Your task to perform on an android device: open device folders in google photos Image 0: 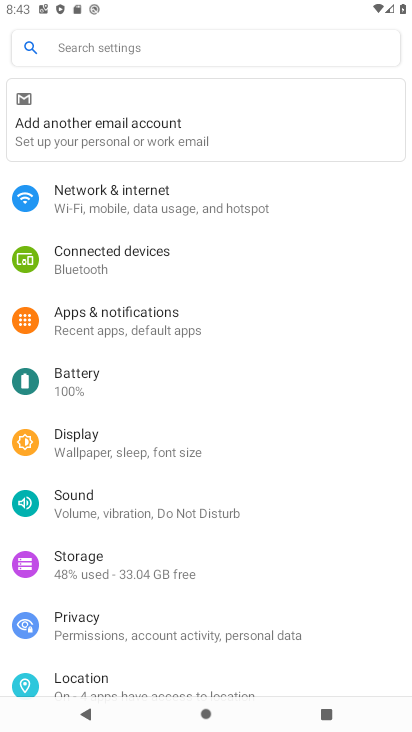
Step 0: press home button
Your task to perform on an android device: open device folders in google photos Image 1: 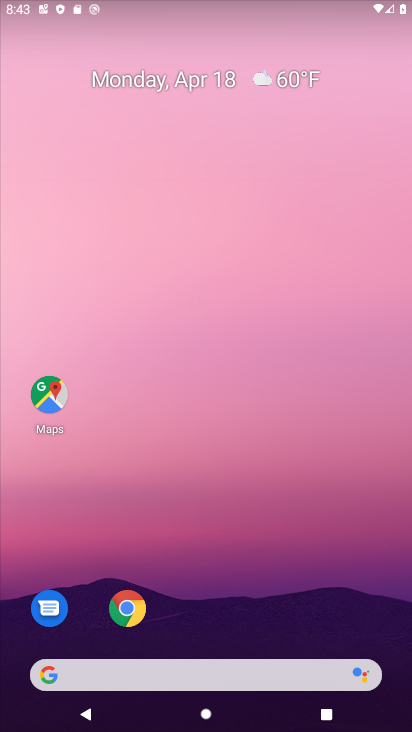
Step 1: drag from (211, 525) to (336, 240)
Your task to perform on an android device: open device folders in google photos Image 2: 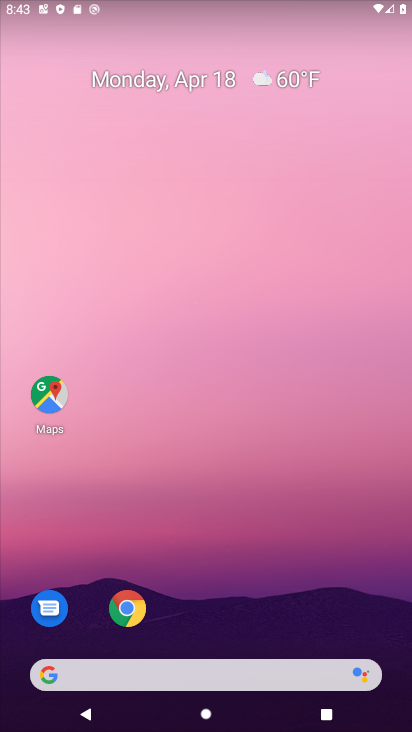
Step 2: drag from (232, 642) to (286, 326)
Your task to perform on an android device: open device folders in google photos Image 3: 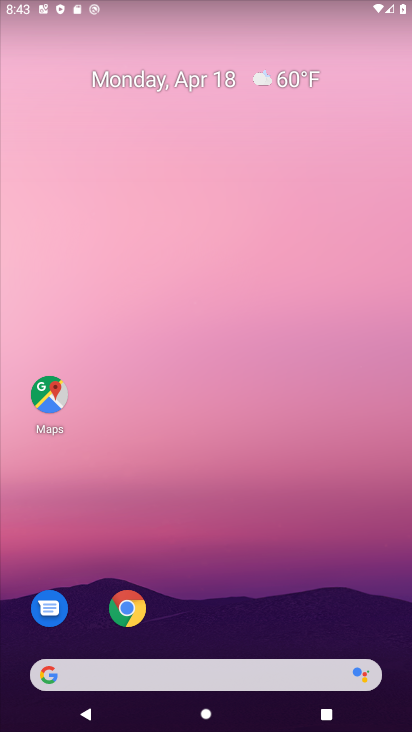
Step 3: drag from (198, 605) to (287, 106)
Your task to perform on an android device: open device folders in google photos Image 4: 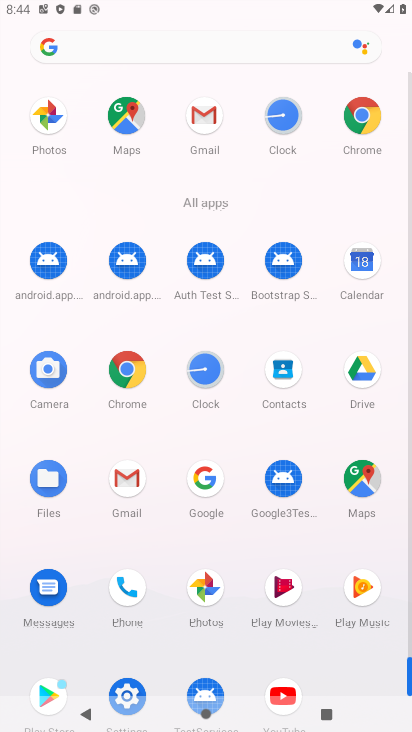
Step 4: click (215, 590)
Your task to perform on an android device: open device folders in google photos Image 5: 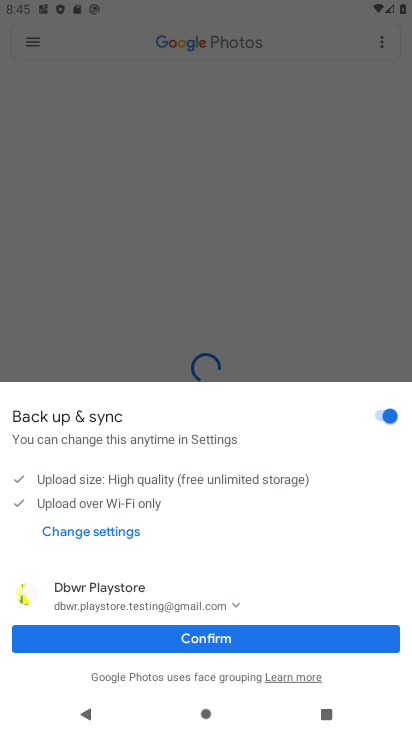
Step 5: drag from (265, 511) to (350, 310)
Your task to perform on an android device: open device folders in google photos Image 6: 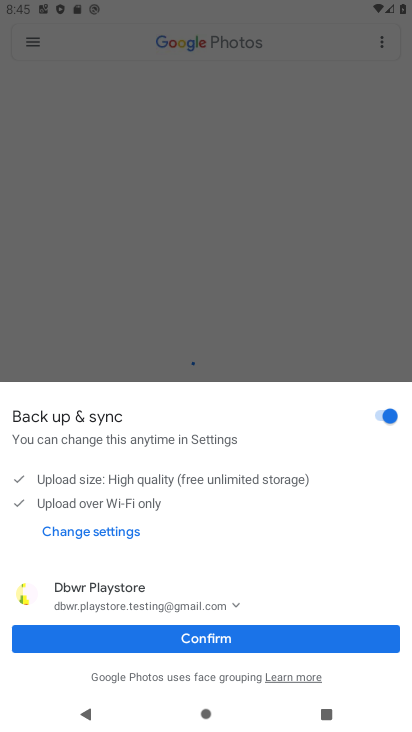
Step 6: drag from (246, 355) to (286, 229)
Your task to perform on an android device: open device folders in google photos Image 7: 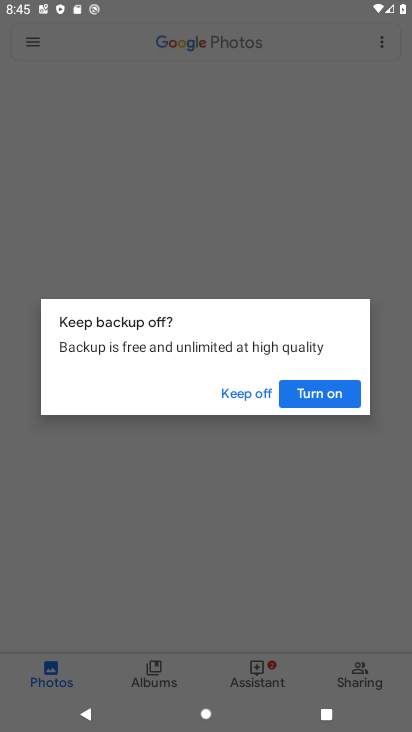
Step 7: drag from (205, 467) to (260, 304)
Your task to perform on an android device: open device folders in google photos Image 8: 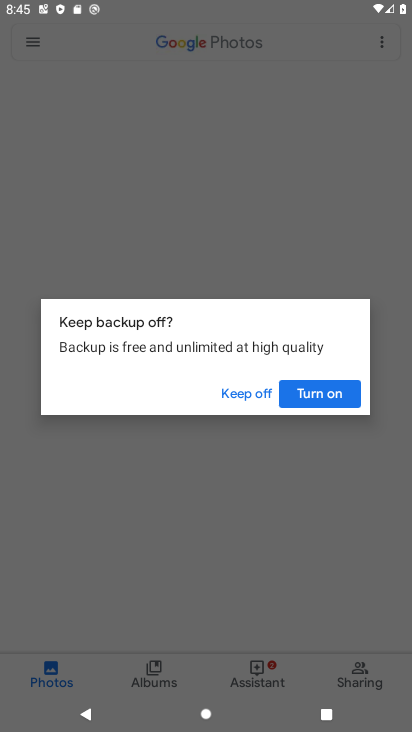
Step 8: click (246, 393)
Your task to perform on an android device: open device folders in google photos Image 9: 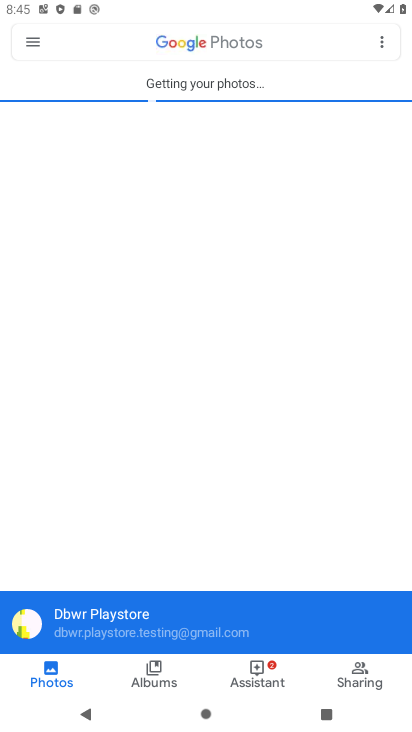
Step 9: click (30, 48)
Your task to perform on an android device: open device folders in google photos Image 10: 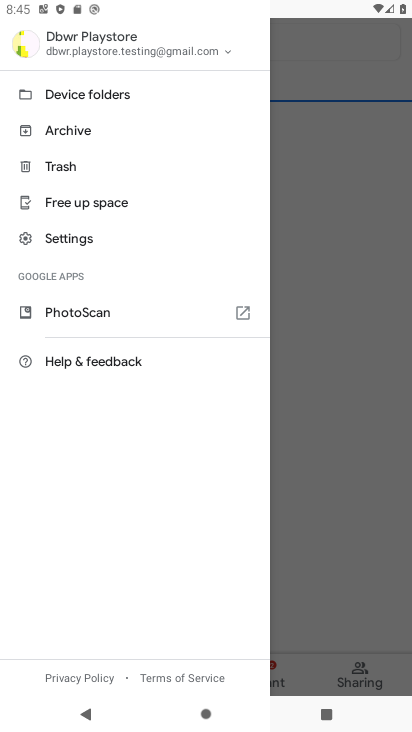
Step 10: click (80, 104)
Your task to perform on an android device: open device folders in google photos Image 11: 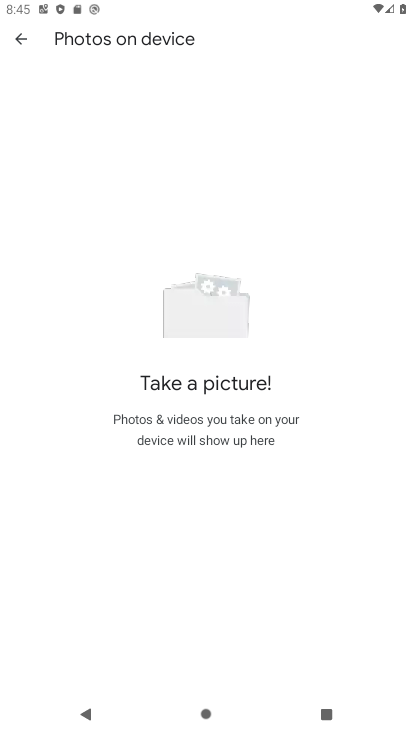
Step 11: task complete